Your task to perform on an android device: open a bookmark in the chrome app Image 0: 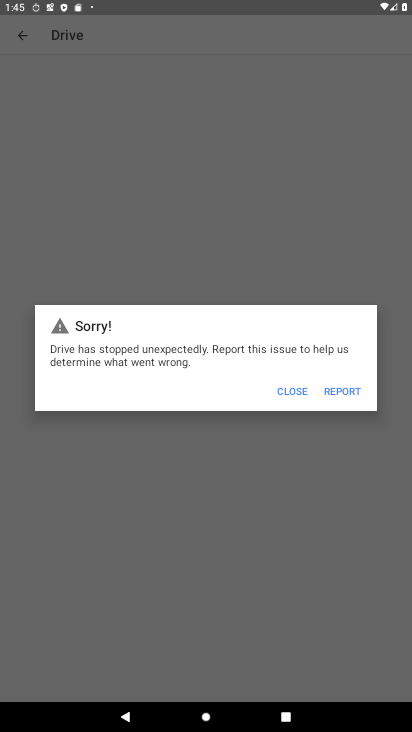
Step 0: press home button
Your task to perform on an android device: open a bookmark in the chrome app Image 1: 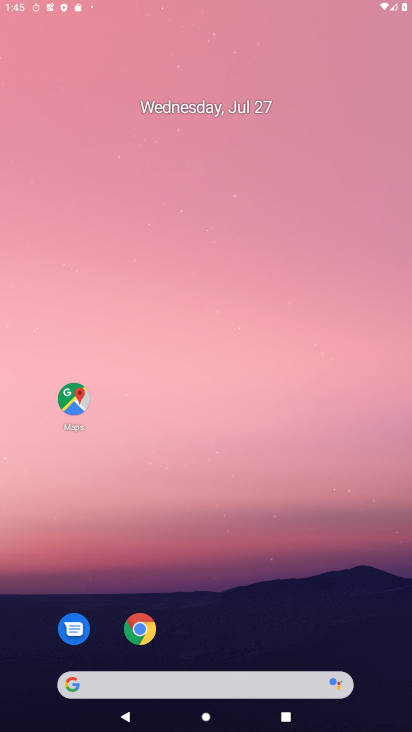
Step 1: drag from (361, 642) to (286, 76)
Your task to perform on an android device: open a bookmark in the chrome app Image 2: 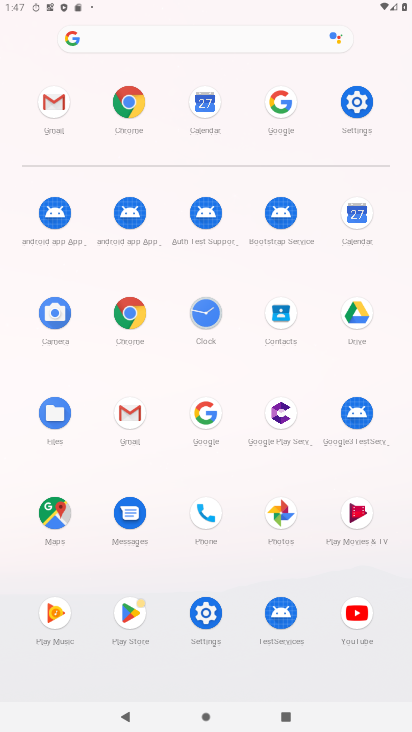
Step 2: click (135, 304)
Your task to perform on an android device: open a bookmark in the chrome app Image 3: 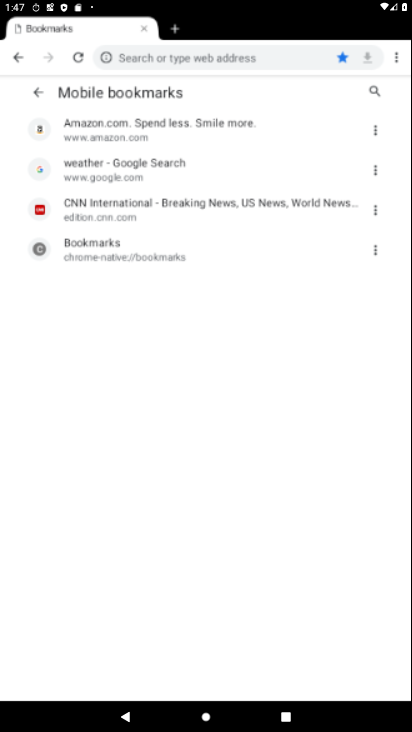
Step 3: click (399, 54)
Your task to perform on an android device: open a bookmark in the chrome app Image 4: 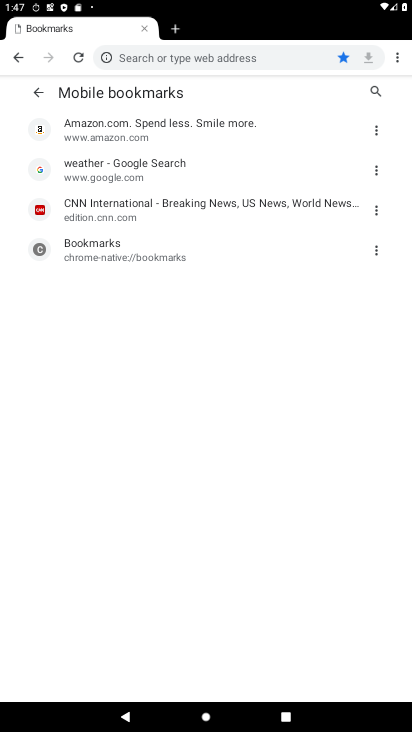
Step 4: click (399, 59)
Your task to perform on an android device: open a bookmark in the chrome app Image 5: 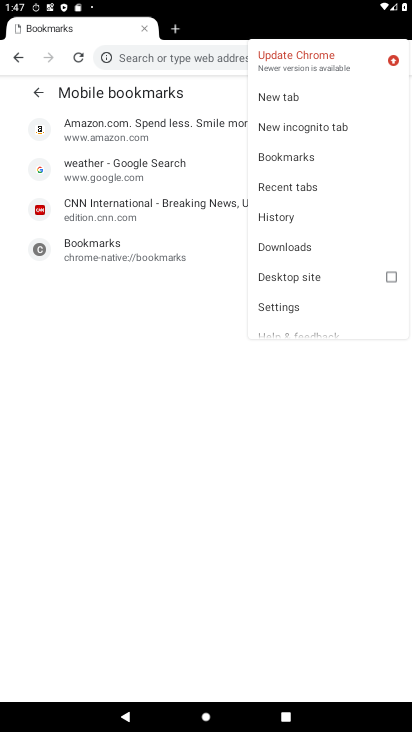
Step 5: click (325, 154)
Your task to perform on an android device: open a bookmark in the chrome app Image 6: 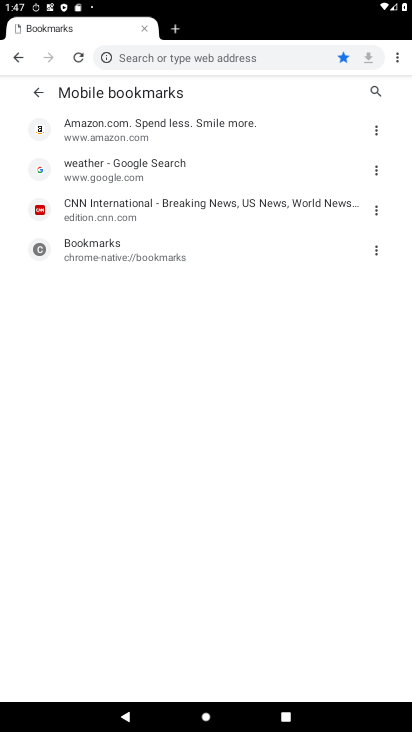
Step 6: task complete